Your task to perform on an android device: all mails in gmail Image 0: 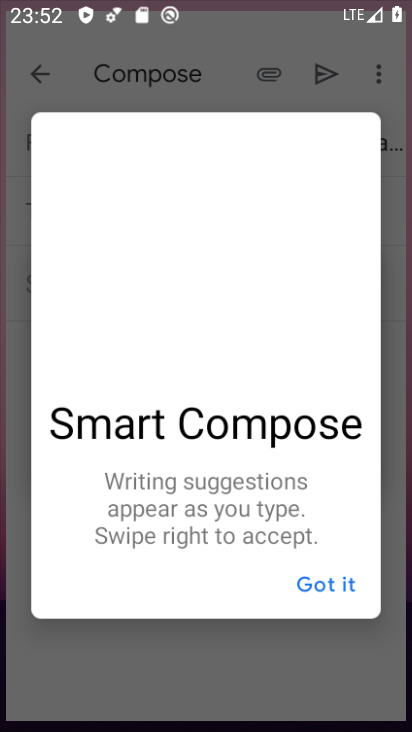
Step 0: click (212, 649)
Your task to perform on an android device: all mails in gmail Image 1: 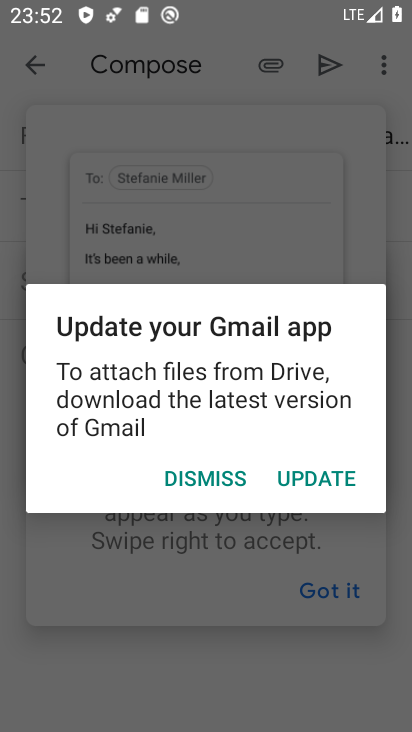
Step 1: press home button
Your task to perform on an android device: all mails in gmail Image 2: 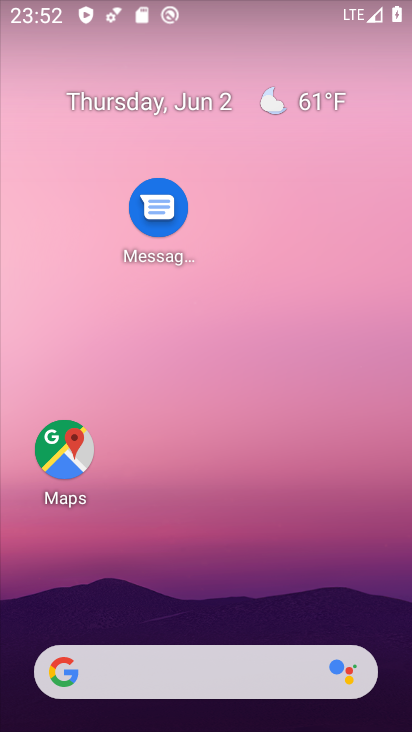
Step 2: drag from (195, 627) to (337, 78)
Your task to perform on an android device: all mails in gmail Image 3: 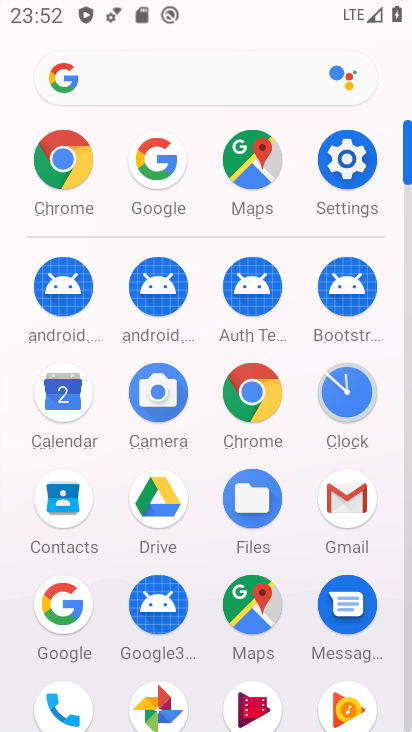
Step 3: click (345, 500)
Your task to perform on an android device: all mails in gmail Image 4: 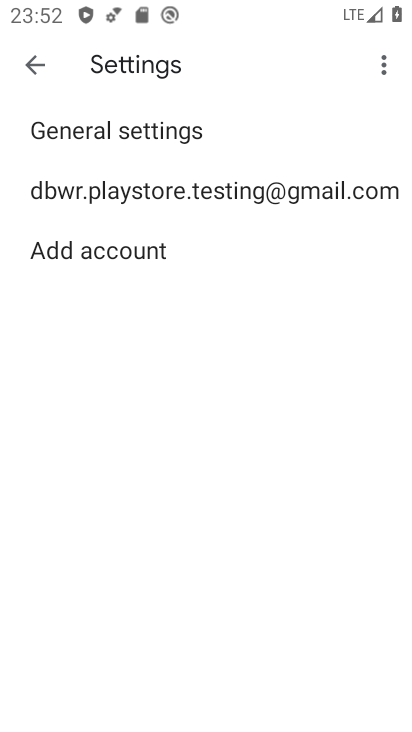
Step 4: click (31, 61)
Your task to perform on an android device: all mails in gmail Image 5: 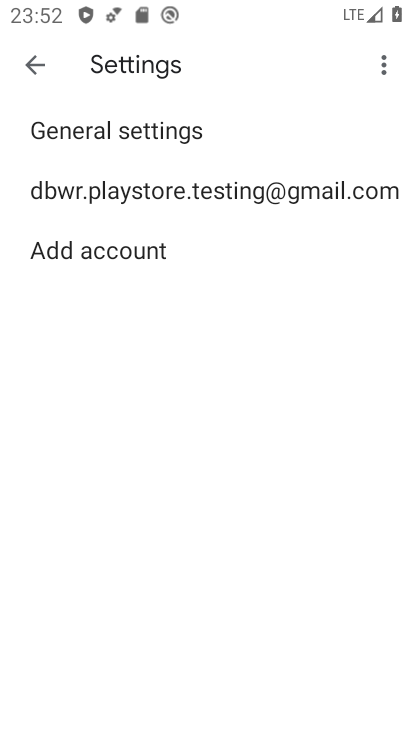
Step 5: click (31, 61)
Your task to perform on an android device: all mails in gmail Image 6: 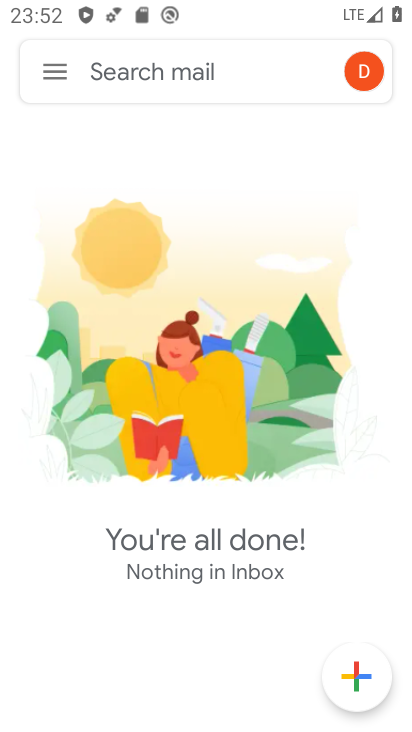
Step 6: click (31, 61)
Your task to perform on an android device: all mails in gmail Image 7: 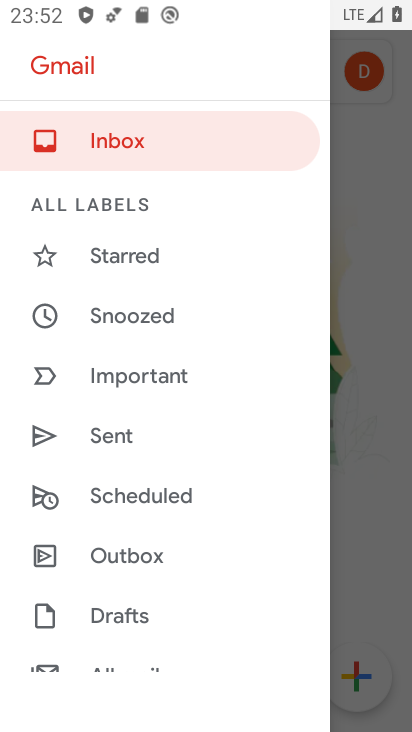
Step 7: drag from (132, 548) to (131, 145)
Your task to perform on an android device: all mails in gmail Image 8: 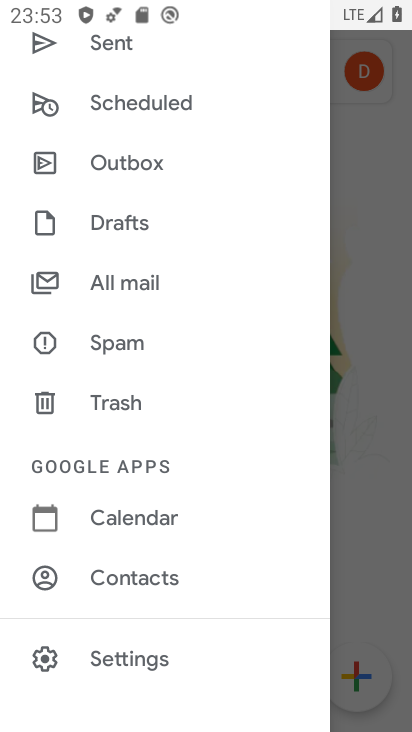
Step 8: click (135, 290)
Your task to perform on an android device: all mails in gmail Image 9: 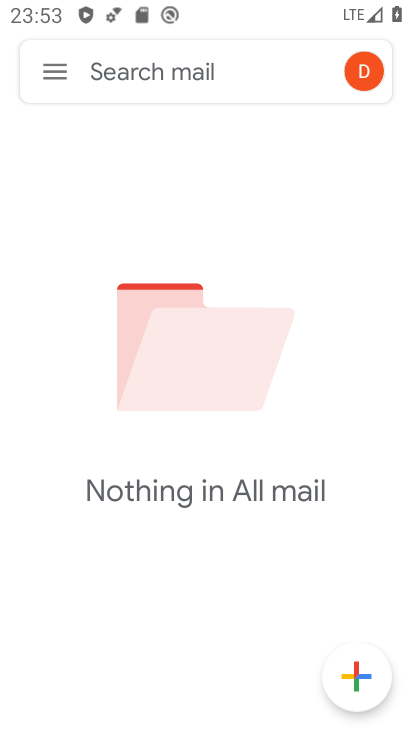
Step 9: task complete